Your task to perform on an android device: read, delete, or share a saved page in the chrome app Image 0: 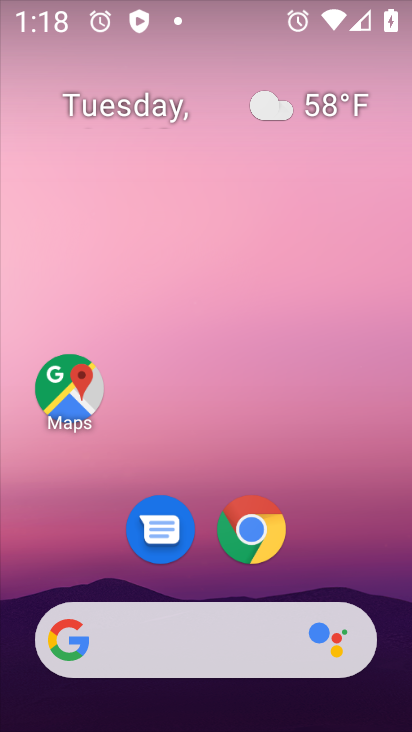
Step 0: drag from (277, 599) to (310, 288)
Your task to perform on an android device: read, delete, or share a saved page in the chrome app Image 1: 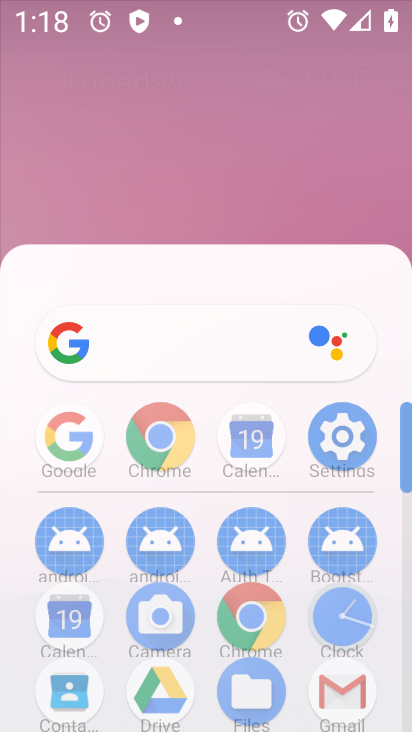
Step 1: click (313, 268)
Your task to perform on an android device: read, delete, or share a saved page in the chrome app Image 2: 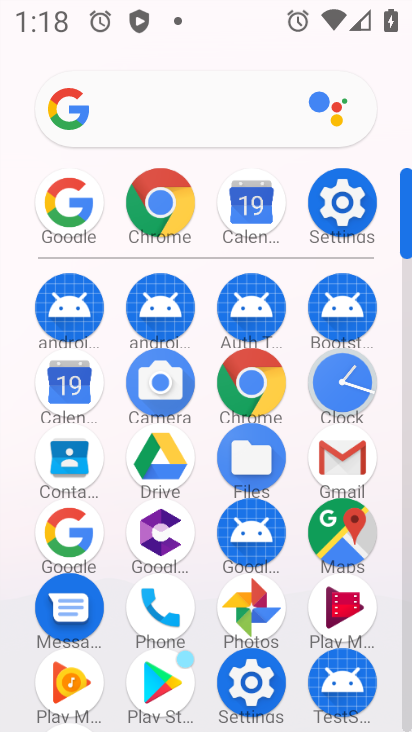
Step 2: click (144, 211)
Your task to perform on an android device: read, delete, or share a saved page in the chrome app Image 3: 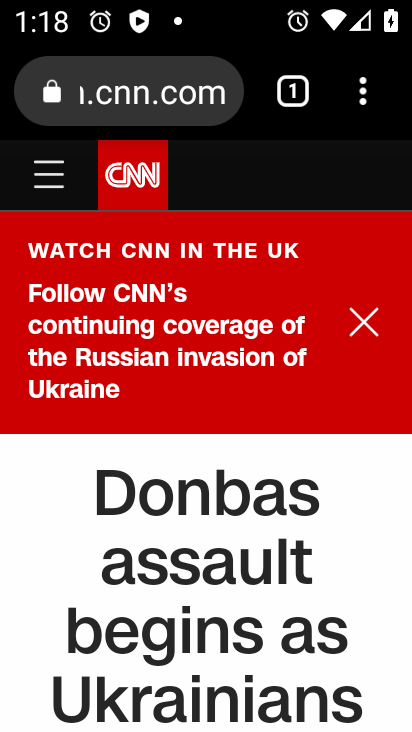
Step 3: click (346, 93)
Your task to perform on an android device: read, delete, or share a saved page in the chrome app Image 4: 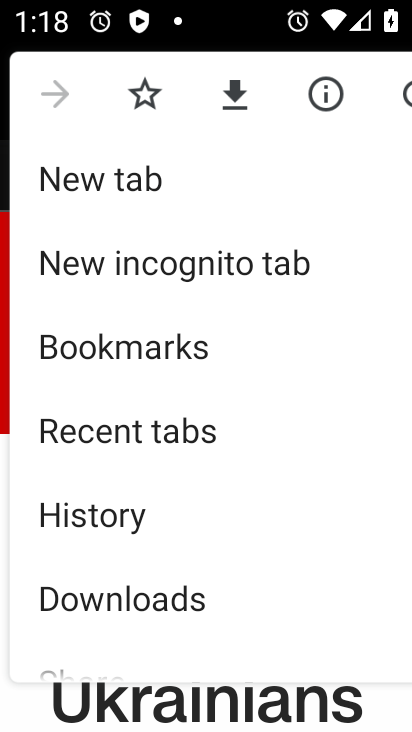
Step 4: drag from (211, 577) to (216, 357)
Your task to perform on an android device: read, delete, or share a saved page in the chrome app Image 5: 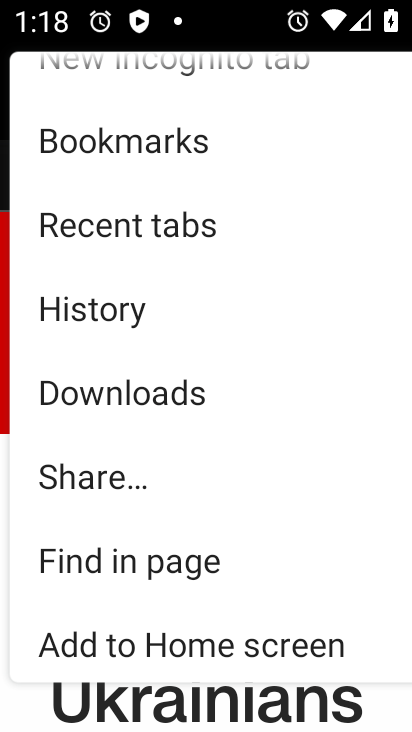
Step 5: click (142, 399)
Your task to perform on an android device: read, delete, or share a saved page in the chrome app Image 6: 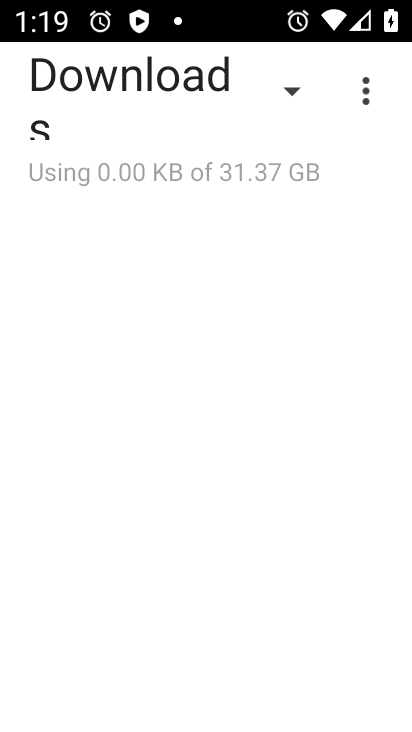
Step 6: click (283, 92)
Your task to perform on an android device: read, delete, or share a saved page in the chrome app Image 7: 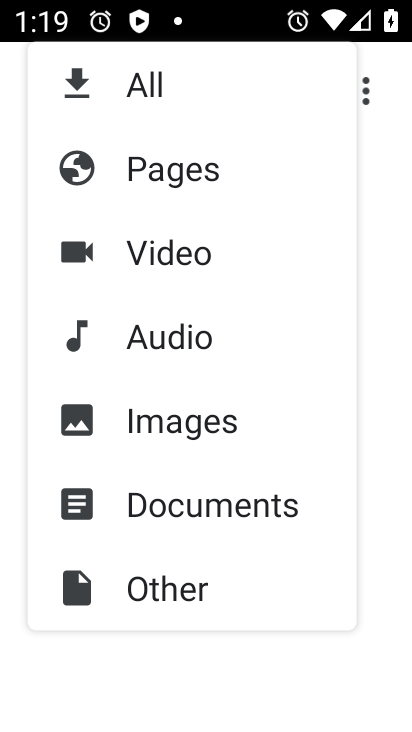
Step 7: click (208, 179)
Your task to perform on an android device: read, delete, or share a saved page in the chrome app Image 8: 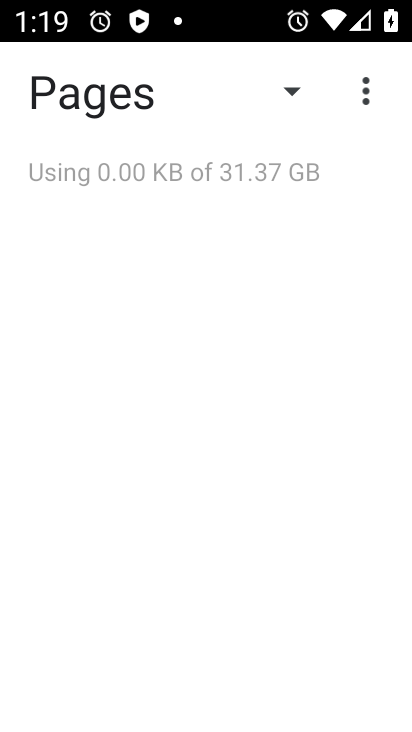
Step 8: task complete